Your task to perform on an android device: turn notification dots on Image 0: 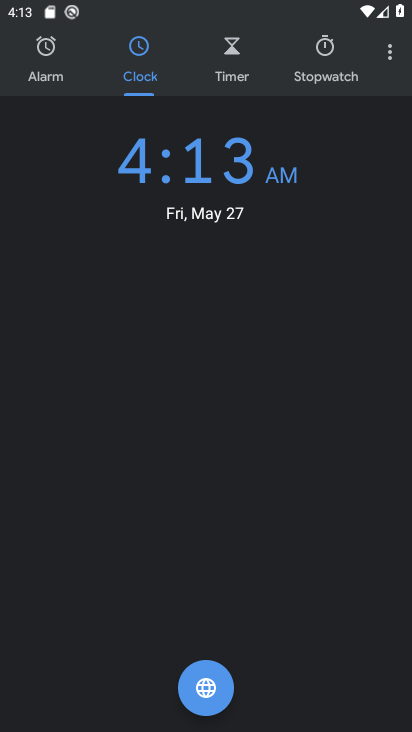
Step 0: press home button
Your task to perform on an android device: turn notification dots on Image 1: 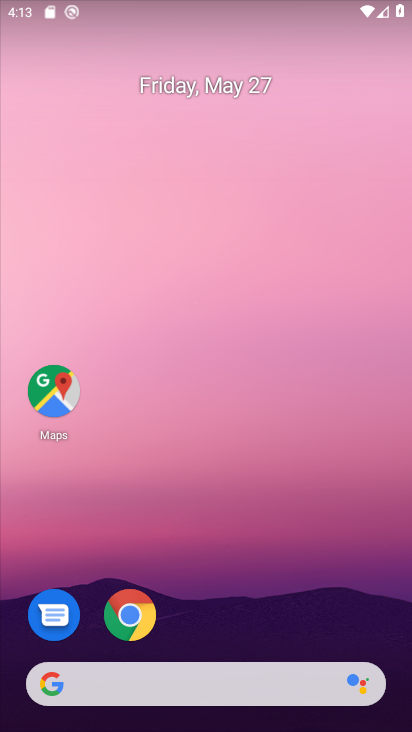
Step 1: drag from (288, 526) to (225, 29)
Your task to perform on an android device: turn notification dots on Image 2: 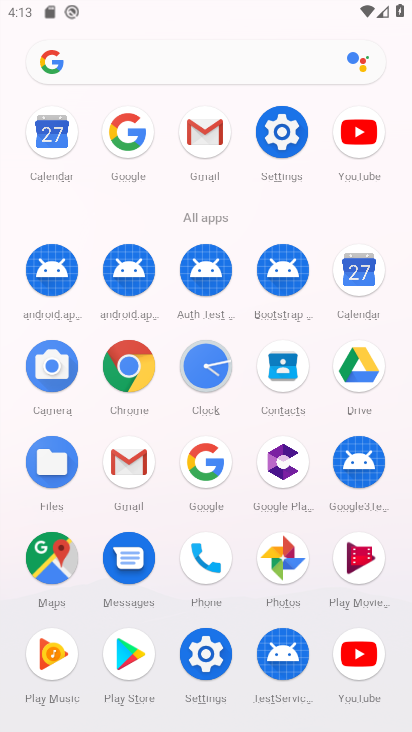
Step 2: click (285, 164)
Your task to perform on an android device: turn notification dots on Image 3: 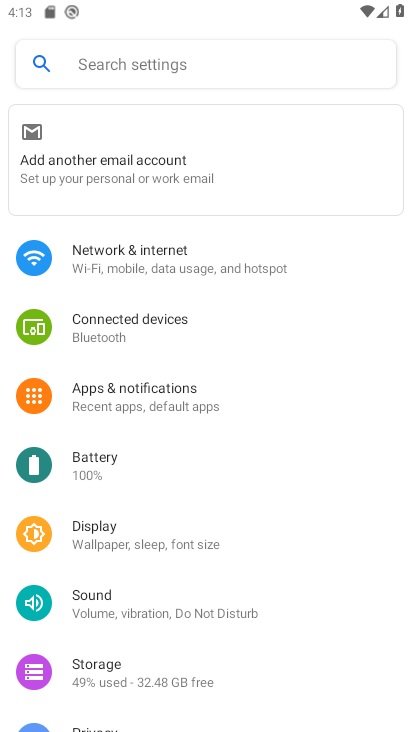
Step 3: click (208, 396)
Your task to perform on an android device: turn notification dots on Image 4: 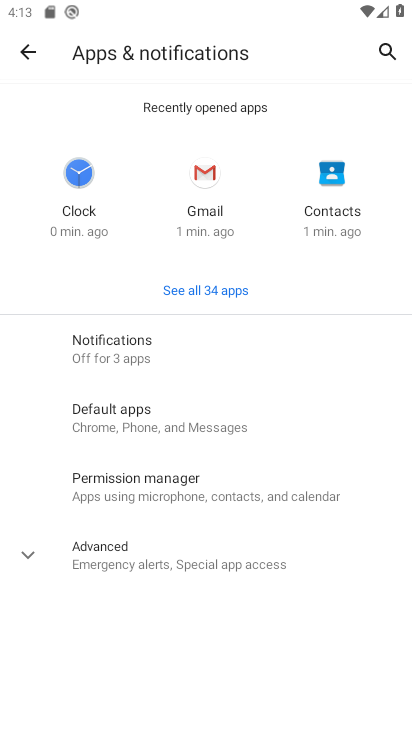
Step 4: click (180, 340)
Your task to perform on an android device: turn notification dots on Image 5: 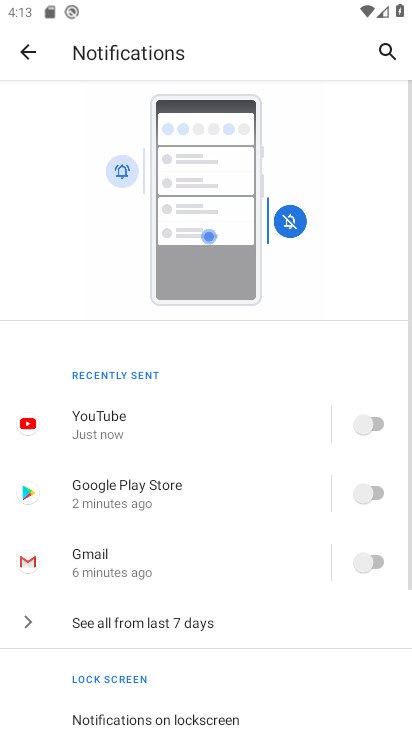
Step 5: click (268, 708)
Your task to perform on an android device: turn notification dots on Image 6: 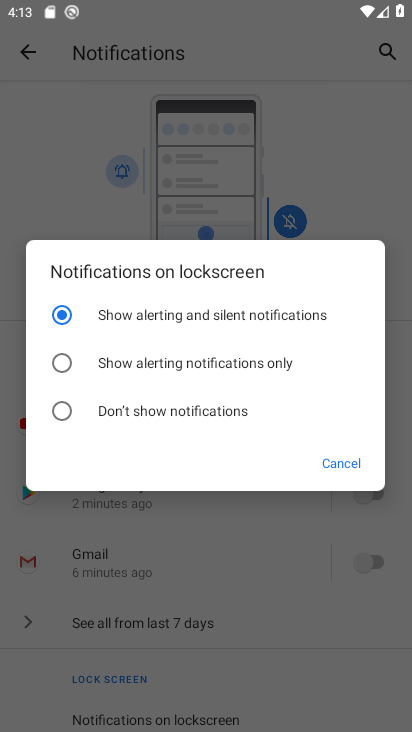
Step 6: drag from (256, 634) to (304, 207)
Your task to perform on an android device: turn notification dots on Image 7: 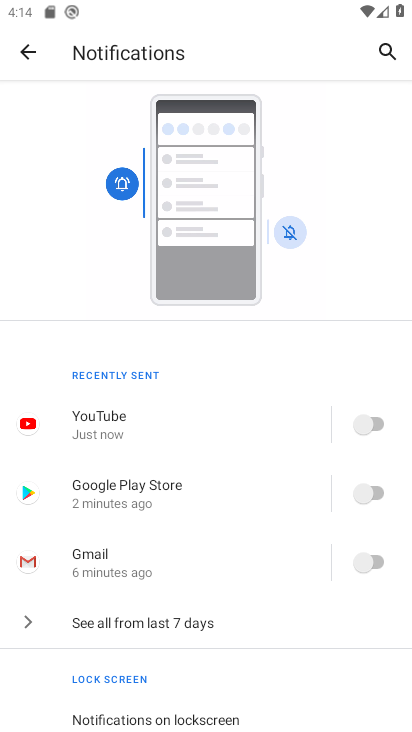
Step 7: click (336, 464)
Your task to perform on an android device: turn notification dots on Image 8: 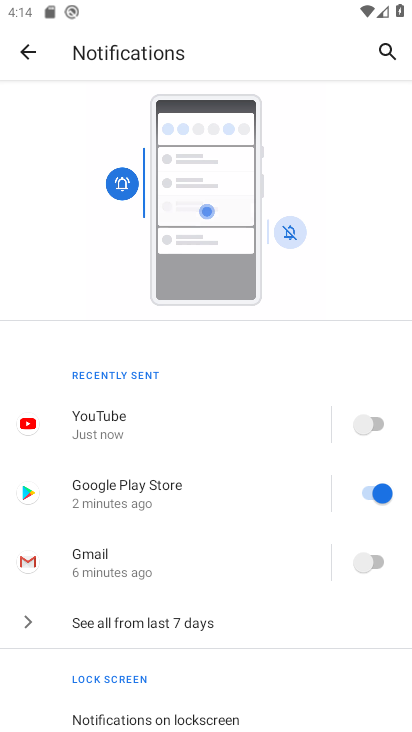
Step 8: drag from (244, 585) to (260, 116)
Your task to perform on an android device: turn notification dots on Image 9: 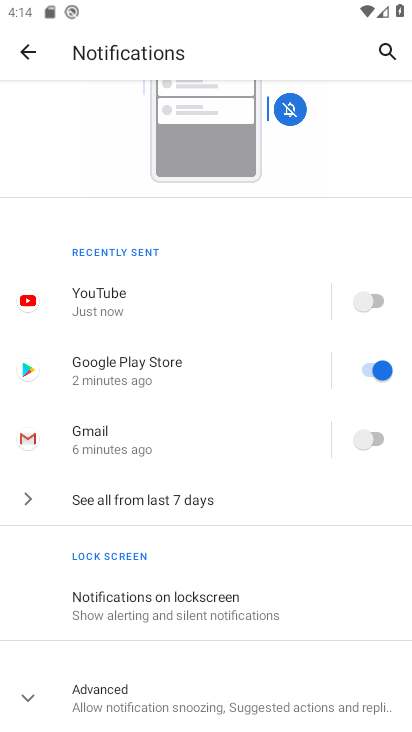
Step 9: click (197, 686)
Your task to perform on an android device: turn notification dots on Image 10: 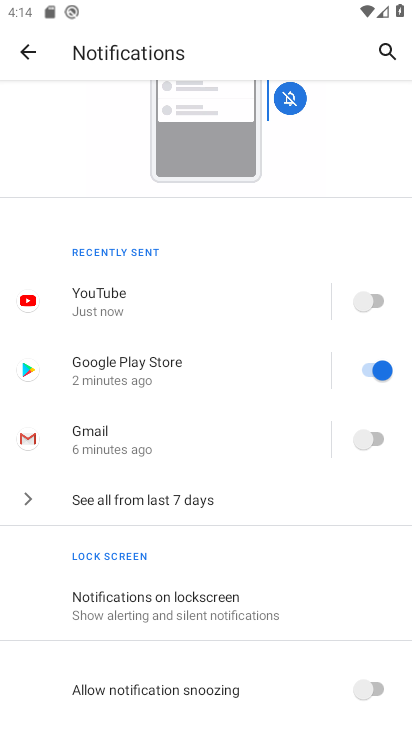
Step 10: task complete